Your task to perform on an android device: add a contact Image 0: 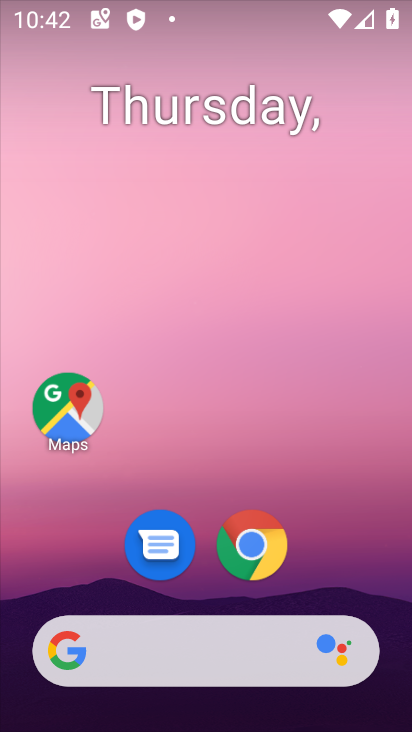
Step 0: drag from (319, 563) to (210, 71)
Your task to perform on an android device: add a contact Image 1: 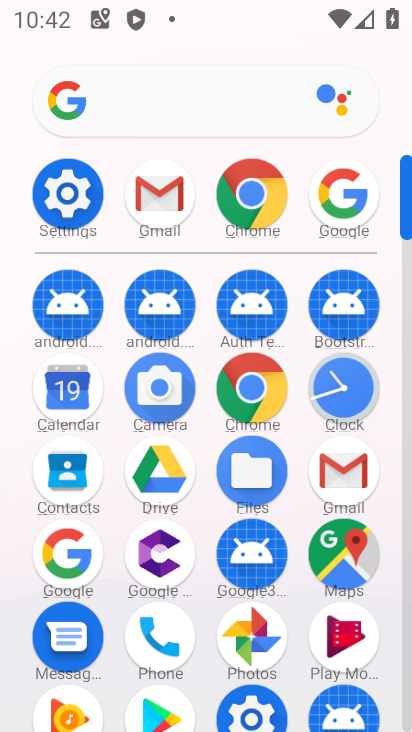
Step 1: click (69, 471)
Your task to perform on an android device: add a contact Image 2: 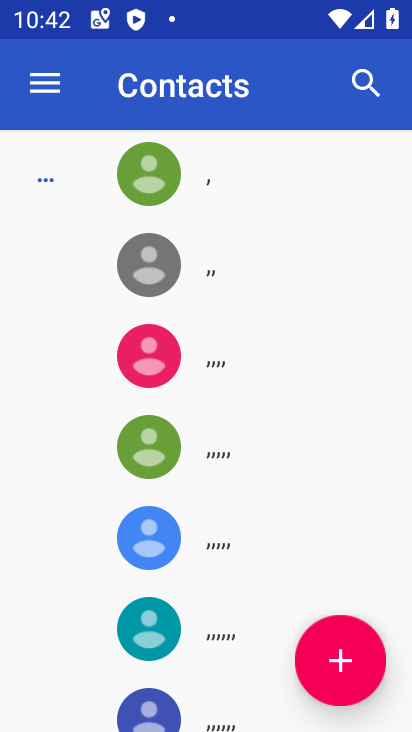
Step 2: click (342, 658)
Your task to perform on an android device: add a contact Image 3: 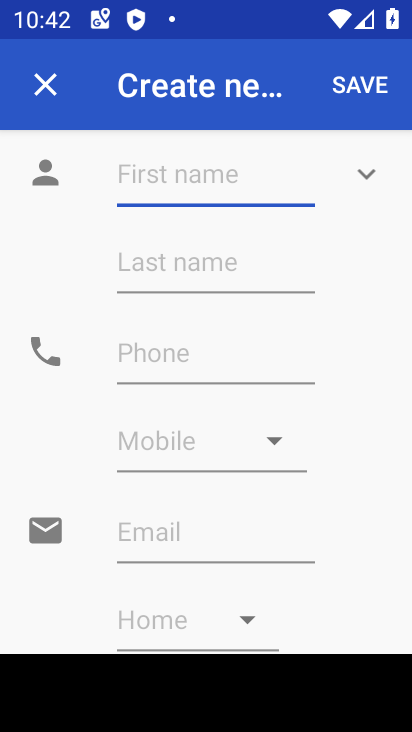
Step 3: click (169, 188)
Your task to perform on an android device: add a contact Image 4: 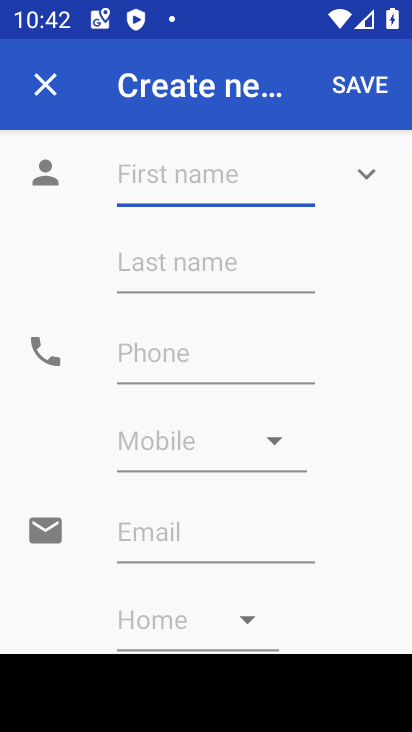
Step 4: type "R"
Your task to perform on an android device: add a contact Image 5: 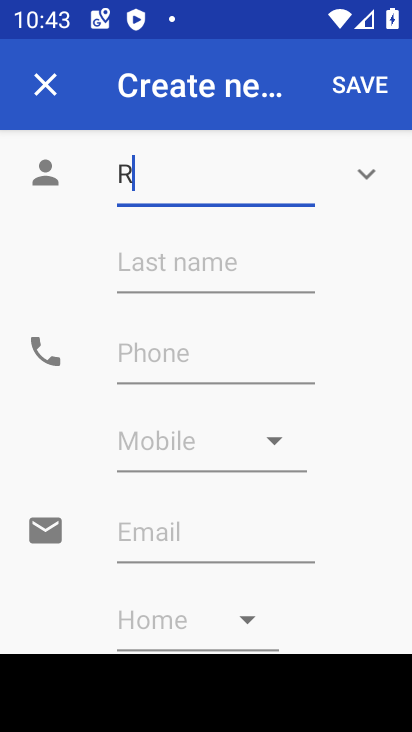
Step 5: type "Ramakrishnan"
Your task to perform on an android device: add a contact Image 6: 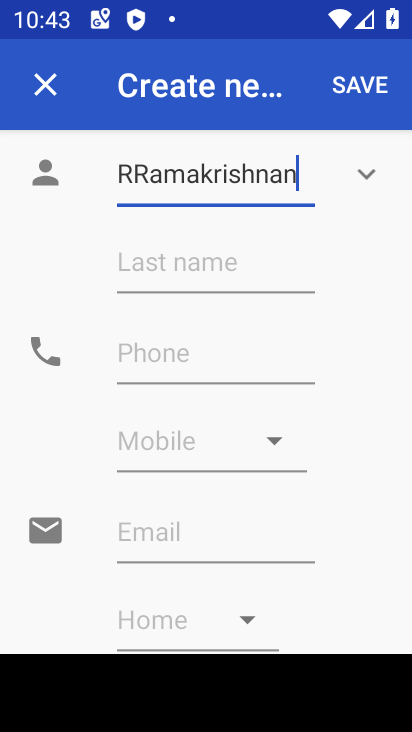
Step 6: click (257, 274)
Your task to perform on an android device: add a contact Image 7: 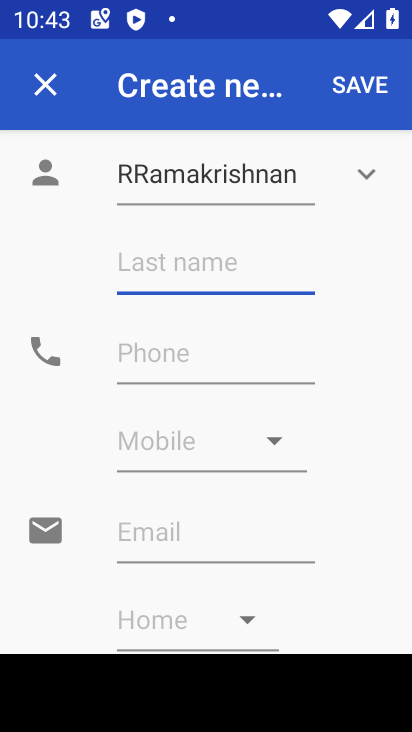
Step 7: type "Murari"
Your task to perform on an android device: add a contact Image 8: 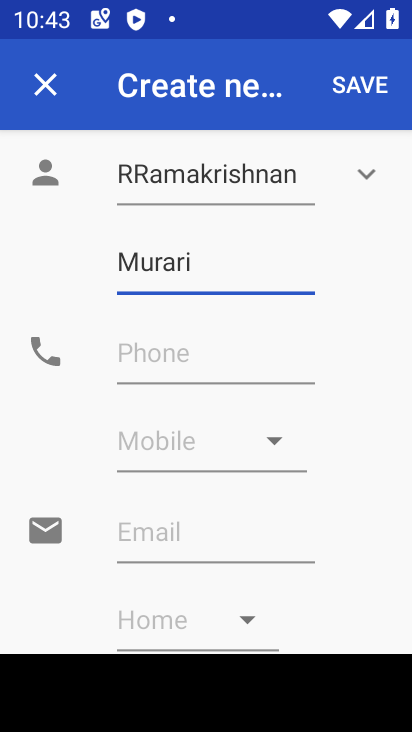
Step 8: click (173, 368)
Your task to perform on an android device: add a contact Image 9: 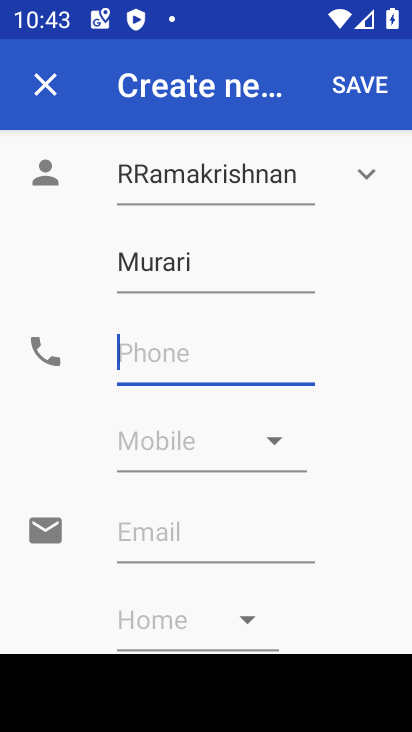
Step 9: type "0998877665544"
Your task to perform on an android device: add a contact Image 10: 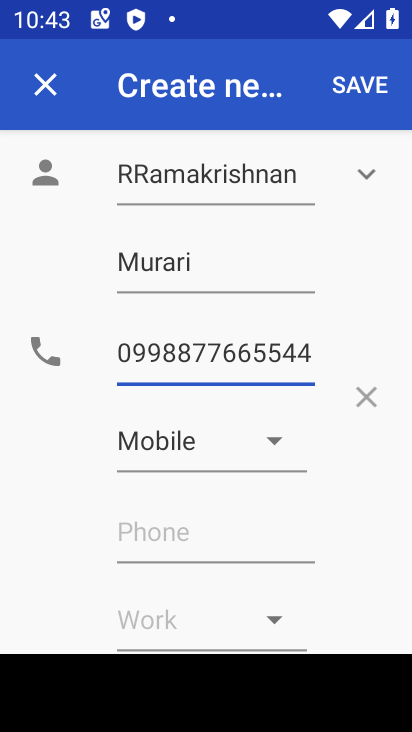
Step 10: click (345, 87)
Your task to perform on an android device: add a contact Image 11: 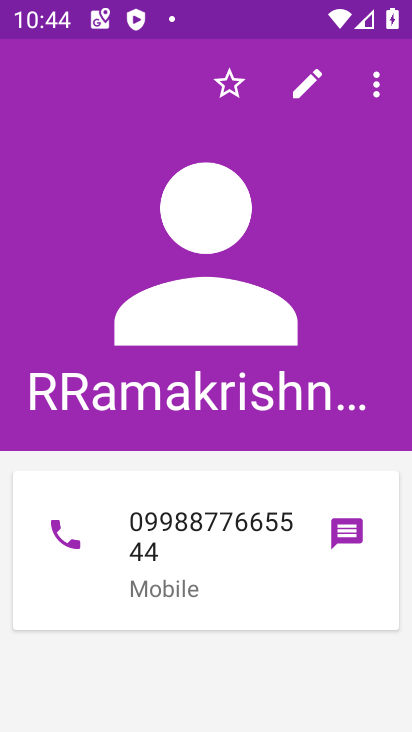
Step 11: task complete